Your task to perform on an android device: Go to privacy settings Image 0: 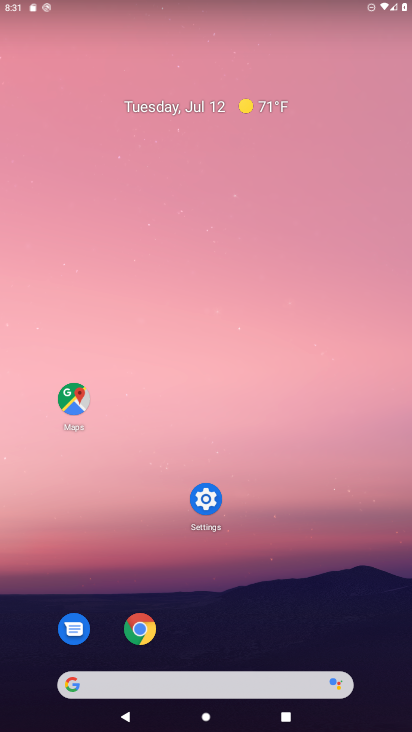
Step 0: click (205, 498)
Your task to perform on an android device: Go to privacy settings Image 1: 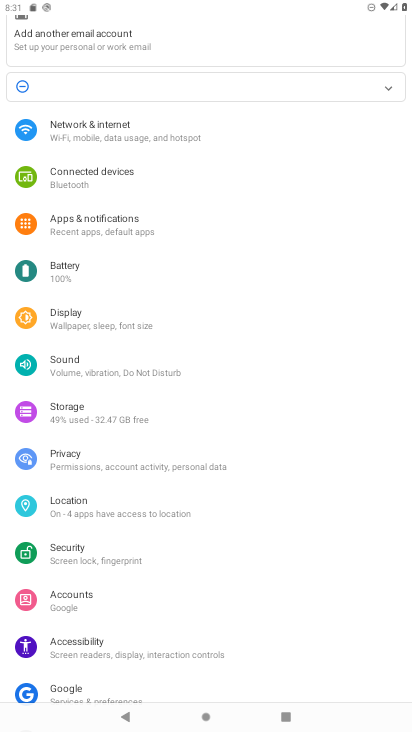
Step 1: click (66, 457)
Your task to perform on an android device: Go to privacy settings Image 2: 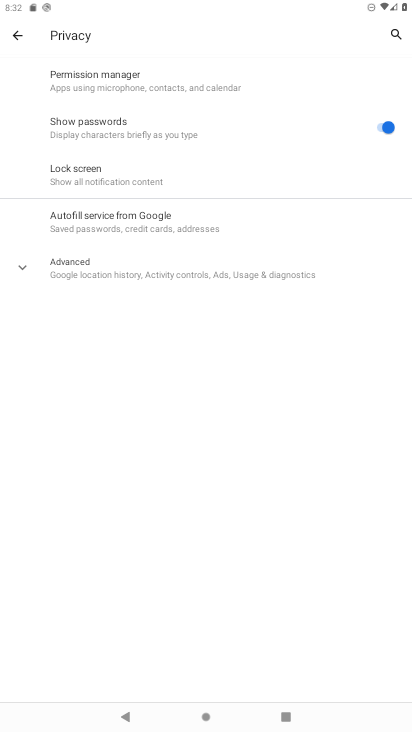
Step 2: task complete